Your task to perform on an android device: check google app version Image 0: 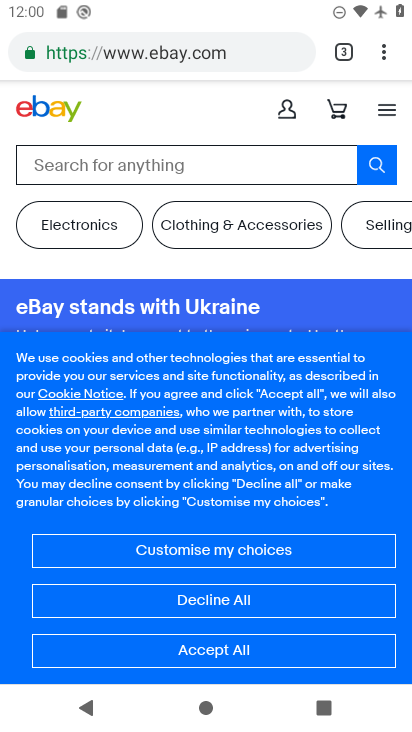
Step 0: press home button
Your task to perform on an android device: check google app version Image 1: 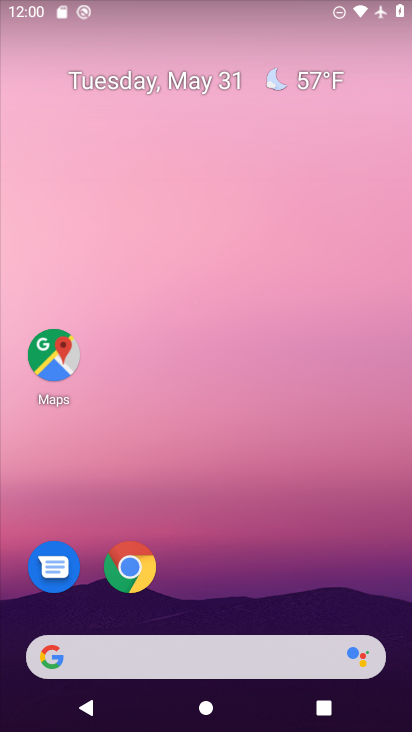
Step 1: drag from (187, 590) to (160, 184)
Your task to perform on an android device: check google app version Image 2: 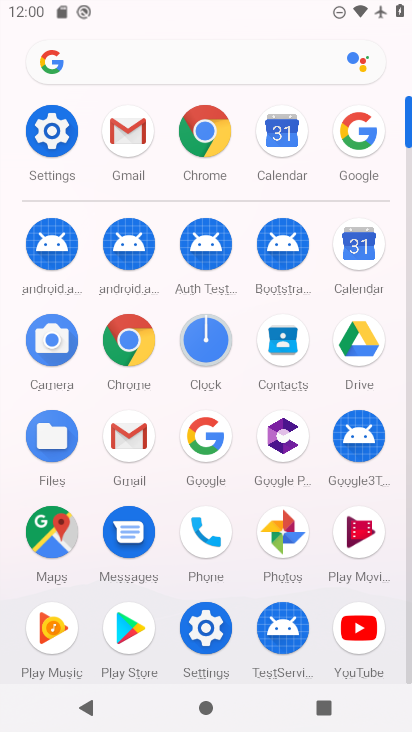
Step 2: click (365, 140)
Your task to perform on an android device: check google app version Image 3: 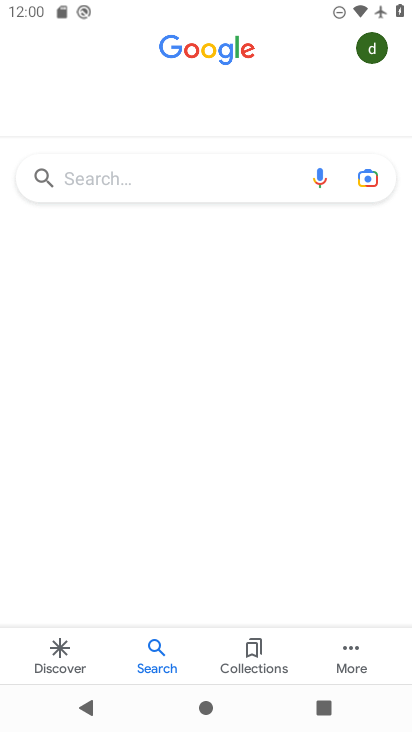
Step 3: click (336, 659)
Your task to perform on an android device: check google app version Image 4: 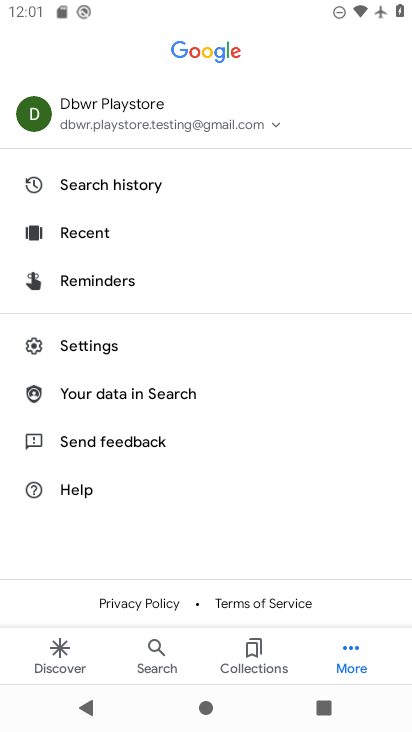
Step 4: click (107, 353)
Your task to perform on an android device: check google app version Image 5: 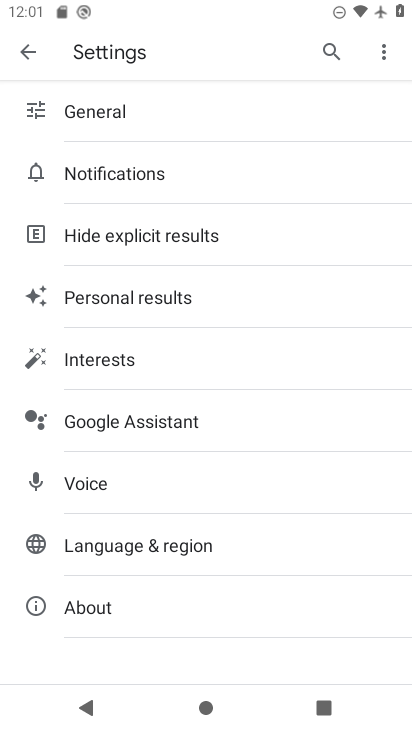
Step 5: click (141, 605)
Your task to perform on an android device: check google app version Image 6: 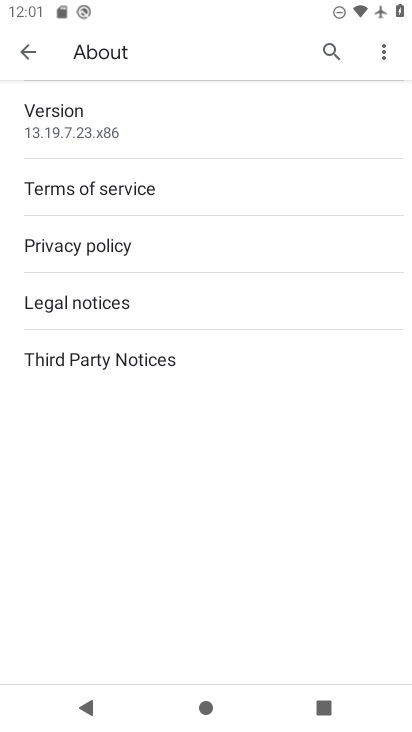
Step 6: click (60, 113)
Your task to perform on an android device: check google app version Image 7: 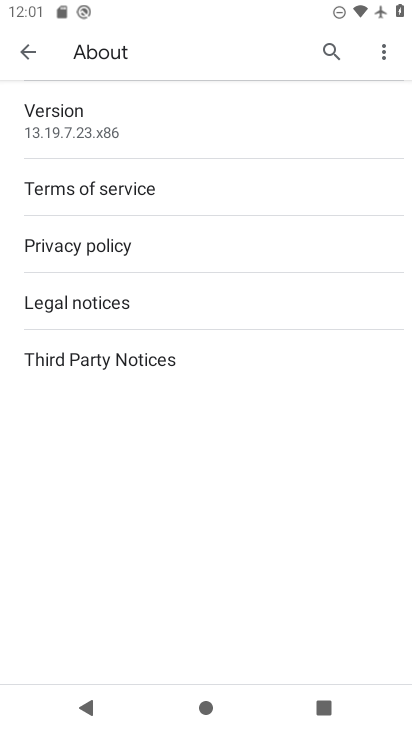
Step 7: click (52, 112)
Your task to perform on an android device: check google app version Image 8: 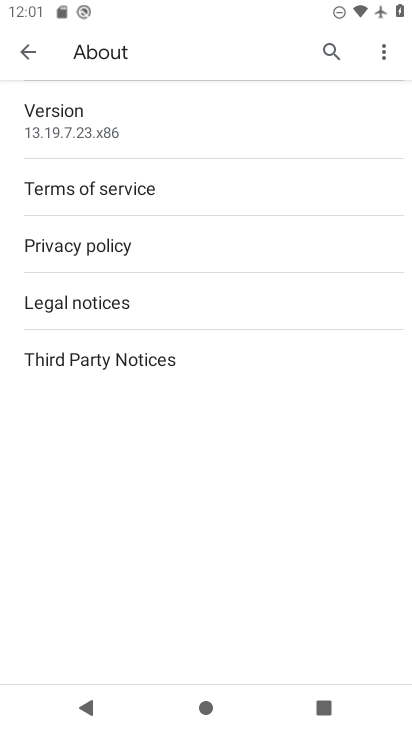
Step 8: task complete